Your task to perform on an android device: set an alarm Image 0: 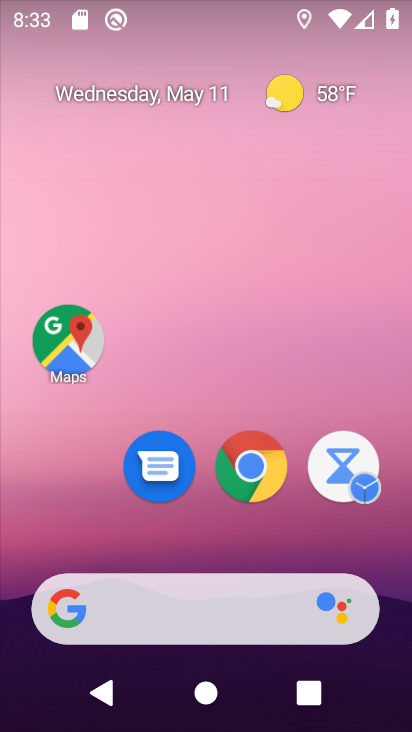
Step 0: drag from (261, 548) to (290, 73)
Your task to perform on an android device: set an alarm Image 1: 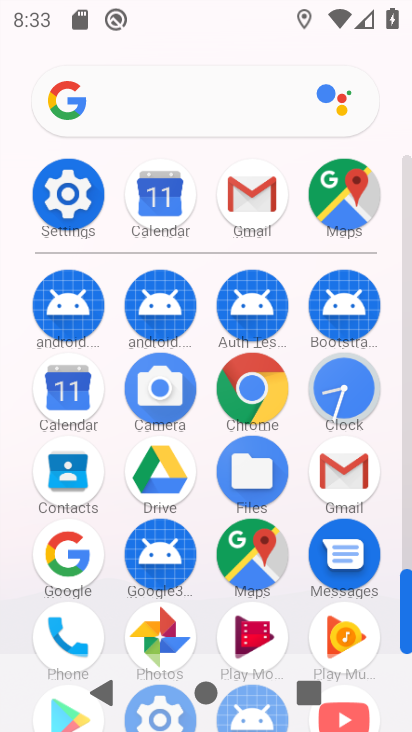
Step 1: click (329, 385)
Your task to perform on an android device: set an alarm Image 2: 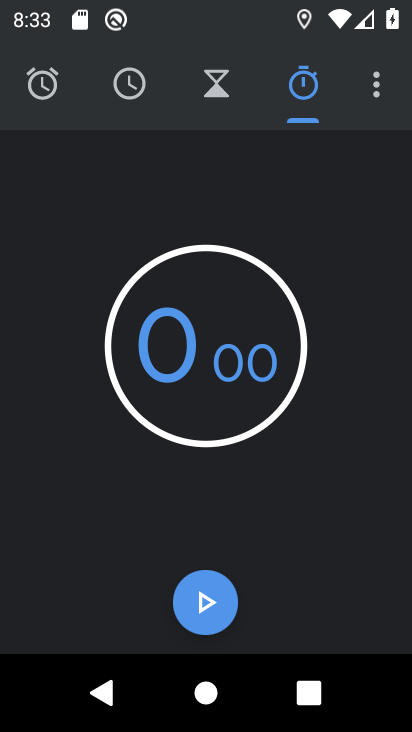
Step 2: drag from (56, 108) to (95, 124)
Your task to perform on an android device: set an alarm Image 3: 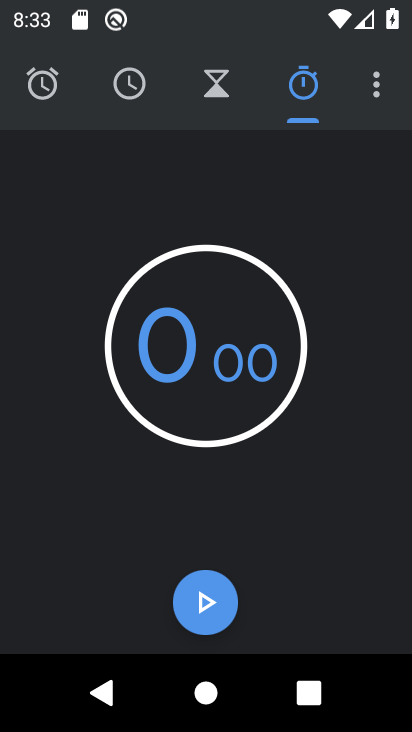
Step 3: click (28, 123)
Your task to perform on an android device: set an alarm Image 4: 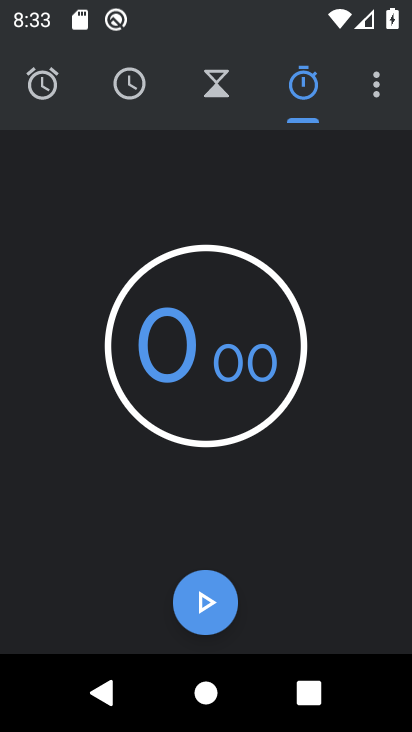
Step 4: click (63, 86)
Your task to perform on an android device: set an alarm Image 5: 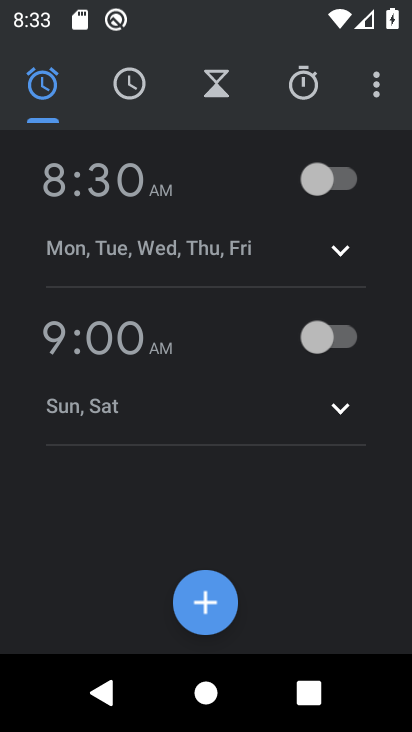
Step 5: click (223, 602)
Your task to perform on an android device: set an alarm Image 6: 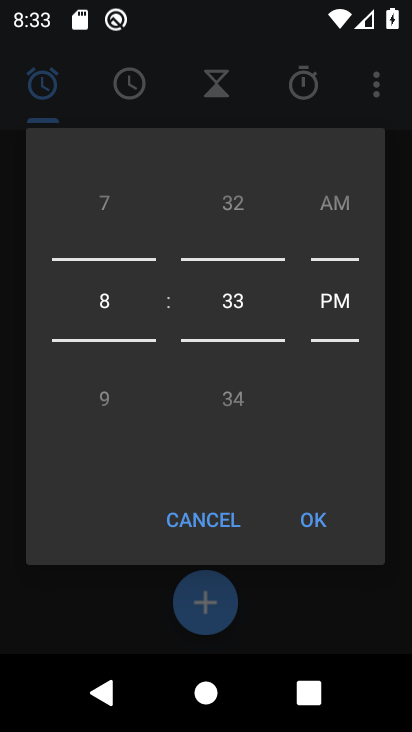
Step 6: click (318, 527)
Your task to perform on an android device: set an alarm Image 7: 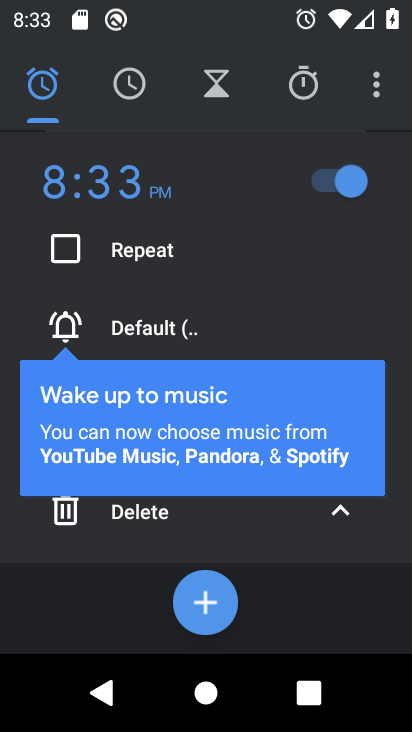
Step 7: click (347, 516)
Your task to perform on an android device: set an alarm Image 8: 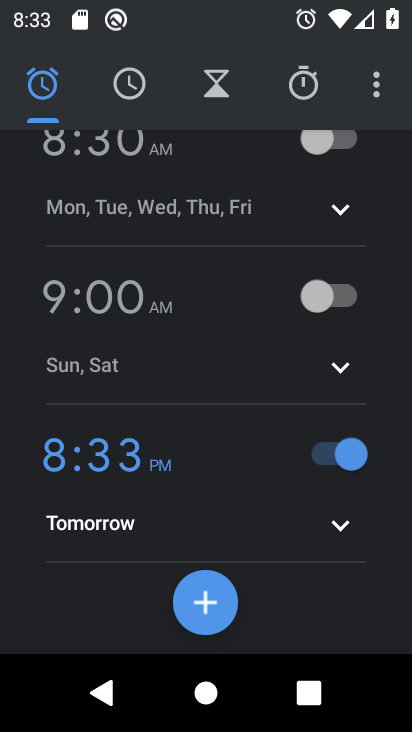
Step 8: task complete